Your task to perform on an android device: Clear the cart on walmart. Image 0: 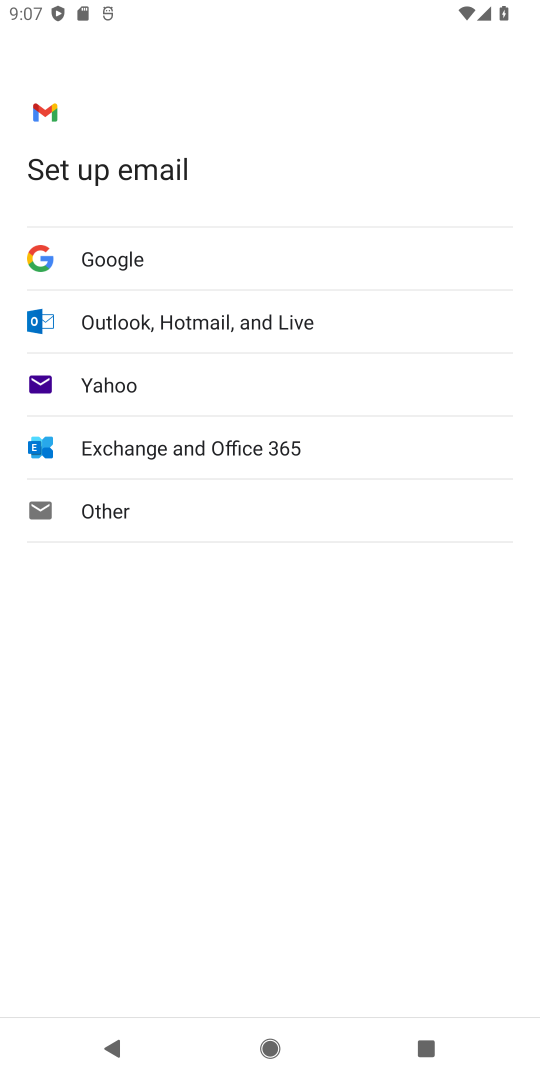
Step 0: press home button
Your task to perform on an android device: Clear the cart on walmart. Image 1: 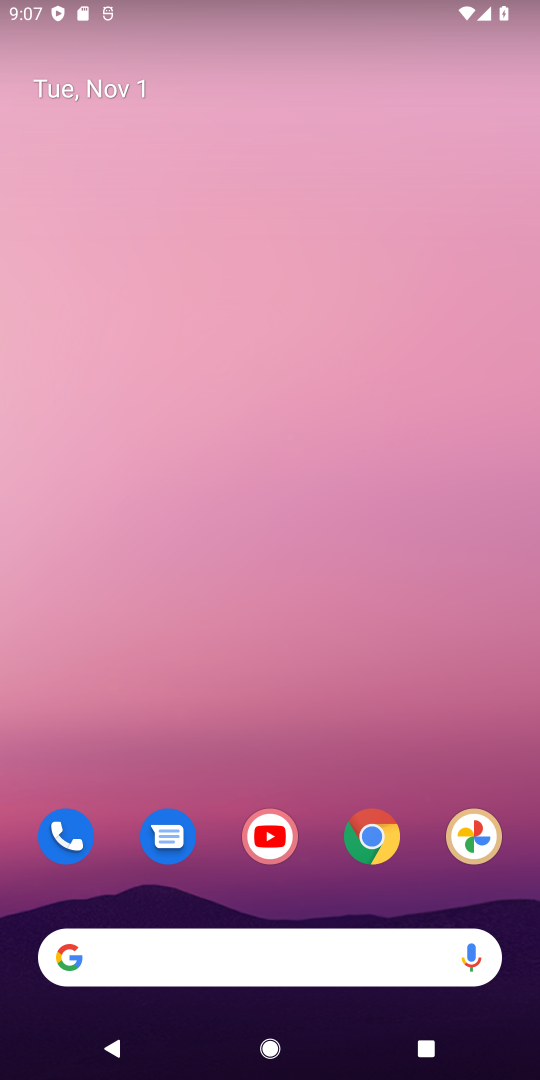
Step 1: click (368, 847)
Your task to perform on an android device: Clear the cart on walmart. Image 2: 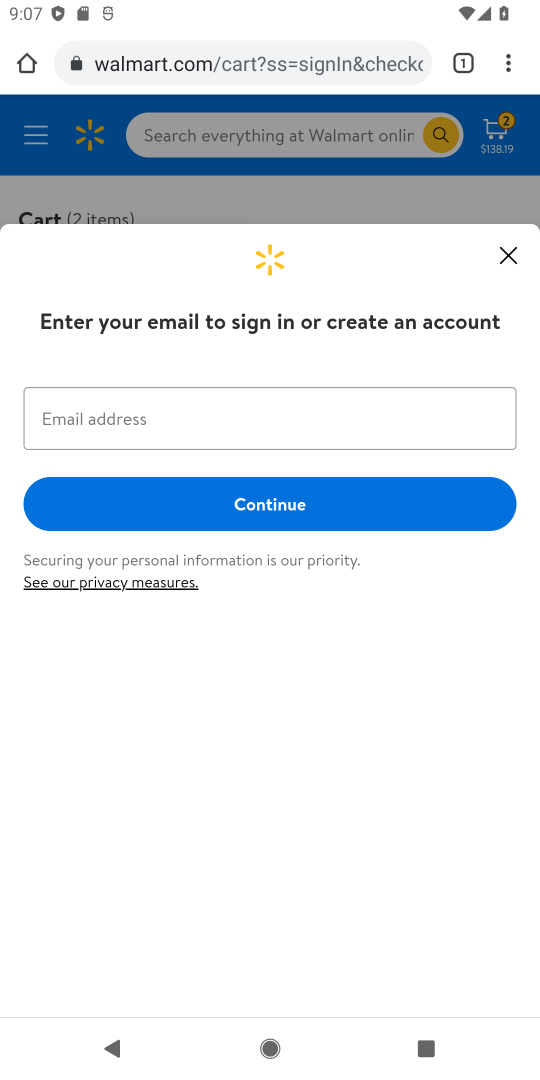
Step 2: click (240, 42)
Your task to perform on an android device: Clear the cart on walmart. Image 3: 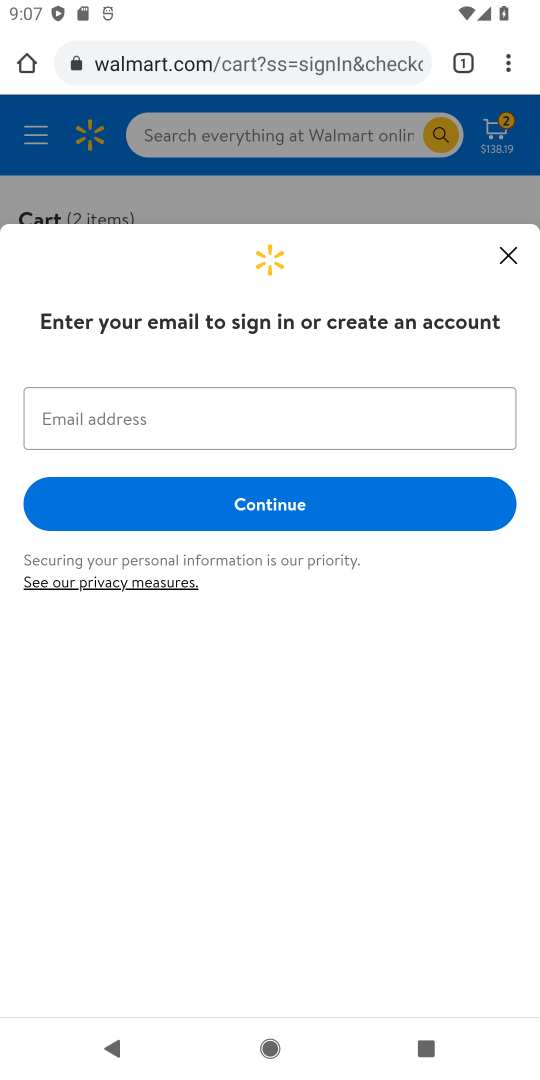
Step 3: click (231, 50)
Your task to perform on an android device: Clear the cart on walmart. Image 4: 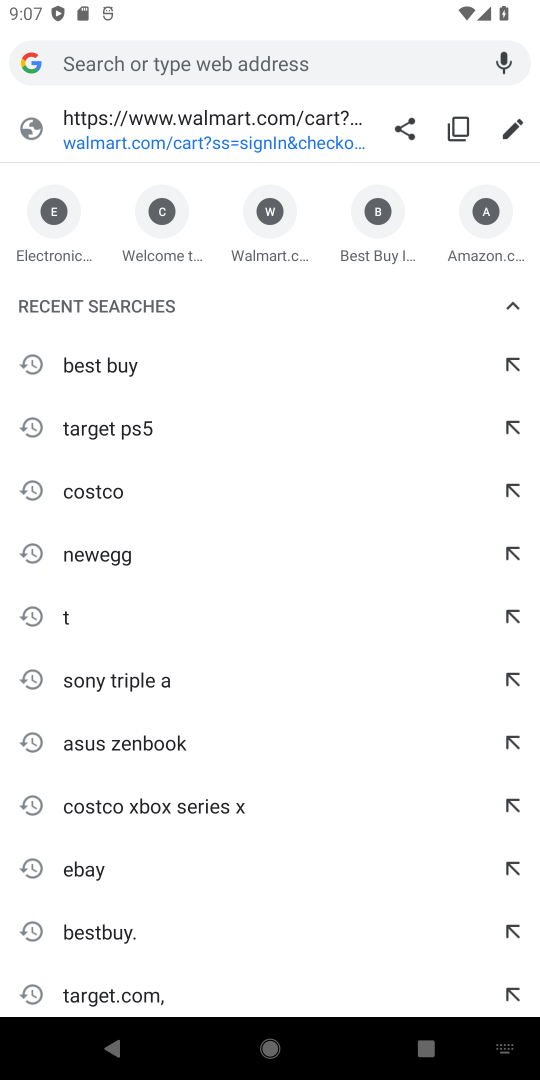
Step 4: type "walmart"
Your task to perform on an android device: Clear the cart on walmart. Image 5: 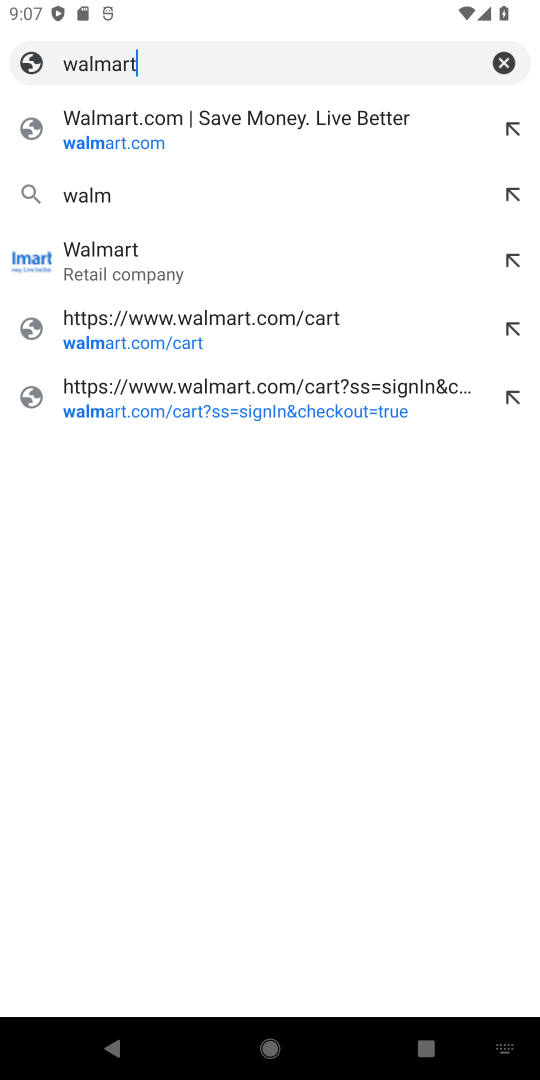
Step 5: type ""
Your task to perform on an android device: Clear the cart on walmart. Image 6: 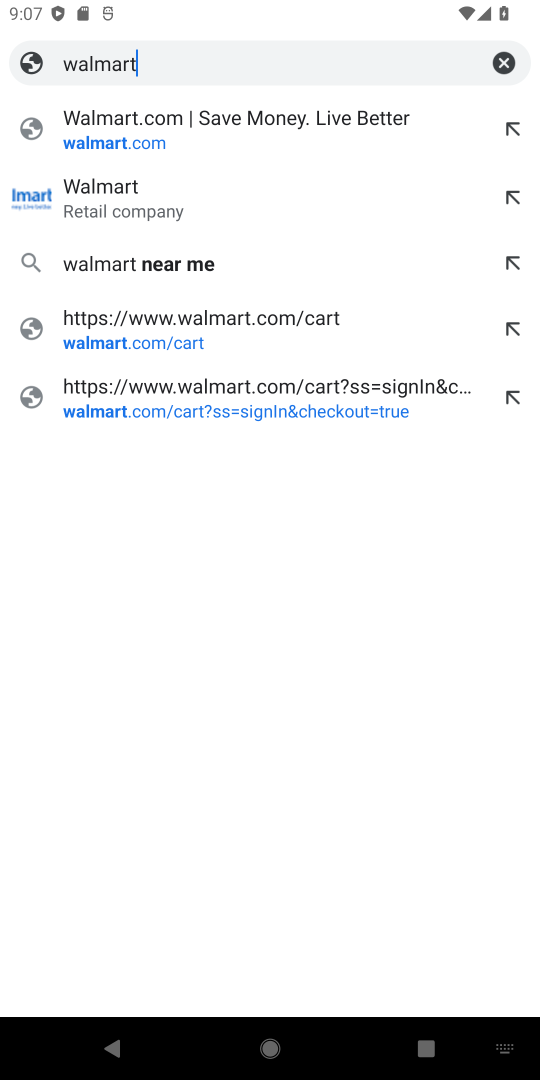
Step 6: press enter
Your task to perform on an android device: Clear the cart on walmart. Image 7: 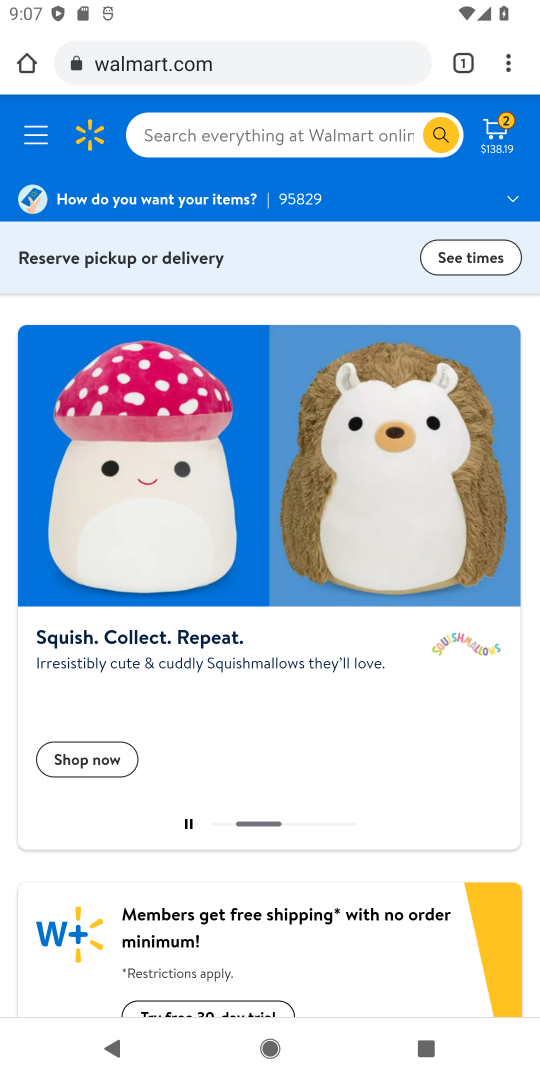
Step 7: click (499, 145)
Your task to perform on an android device: Clear the cart on walmart. Image 8: 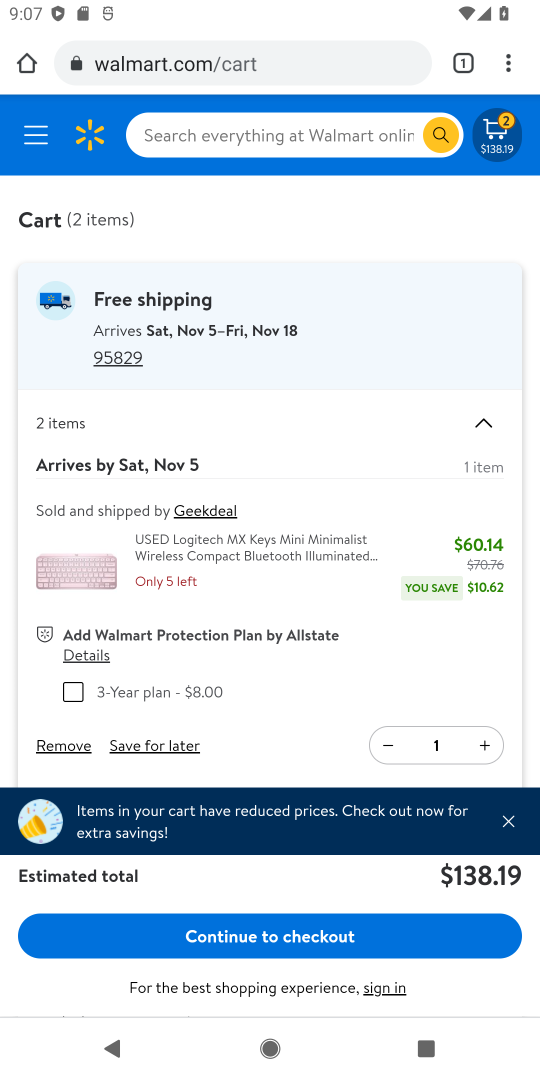
Step 8: click (58, 740)
Your task to perform on an android device: Clear the cart on walmart. Image 9: 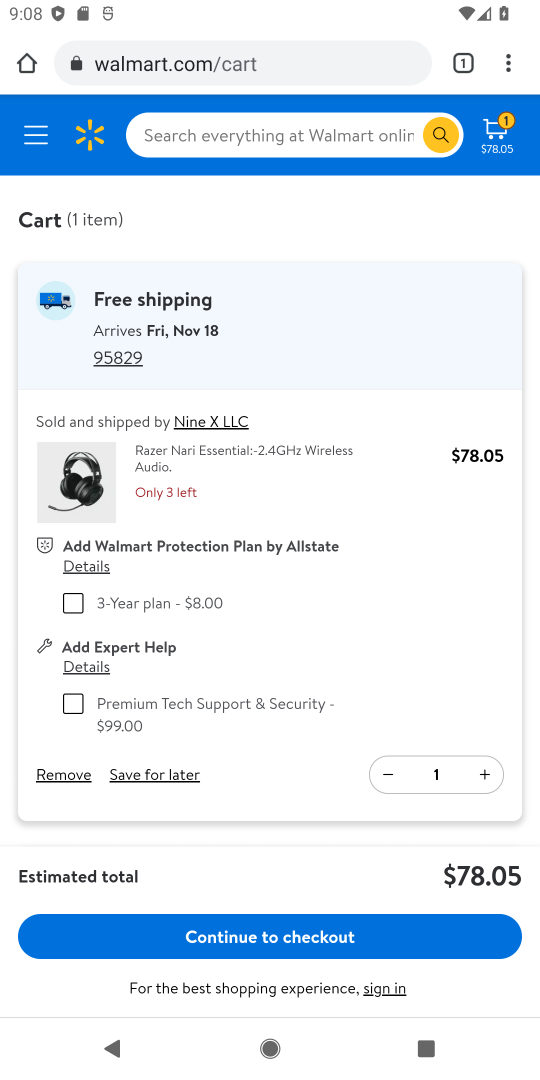
Step 9: click (58, 761)
Your task to perform on an android device: Clear the cart on walmart. Image 10: 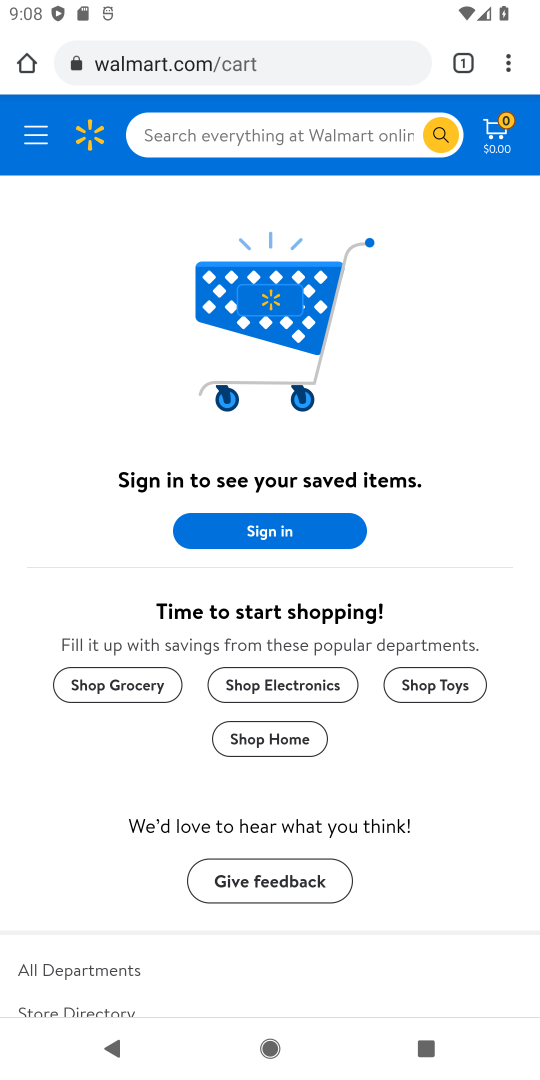
Step 10: press back button
Your task to perform on an android device: Clear the cart on walmart. Image 11: 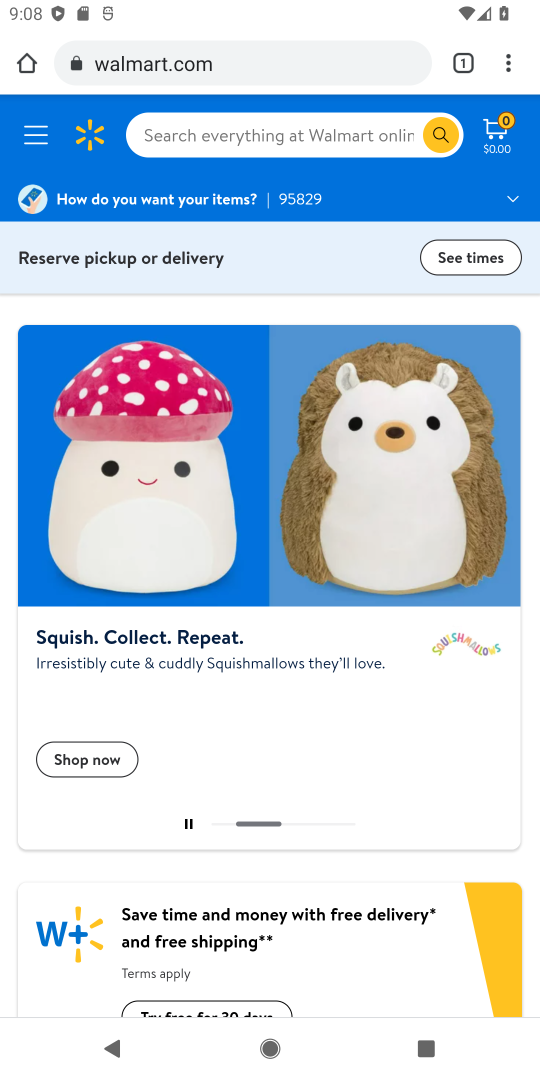
Step 11: drag from (316, 666) to (321, 389)
Your task to perform on an android device: Clear the cart on walmart. Image 12: 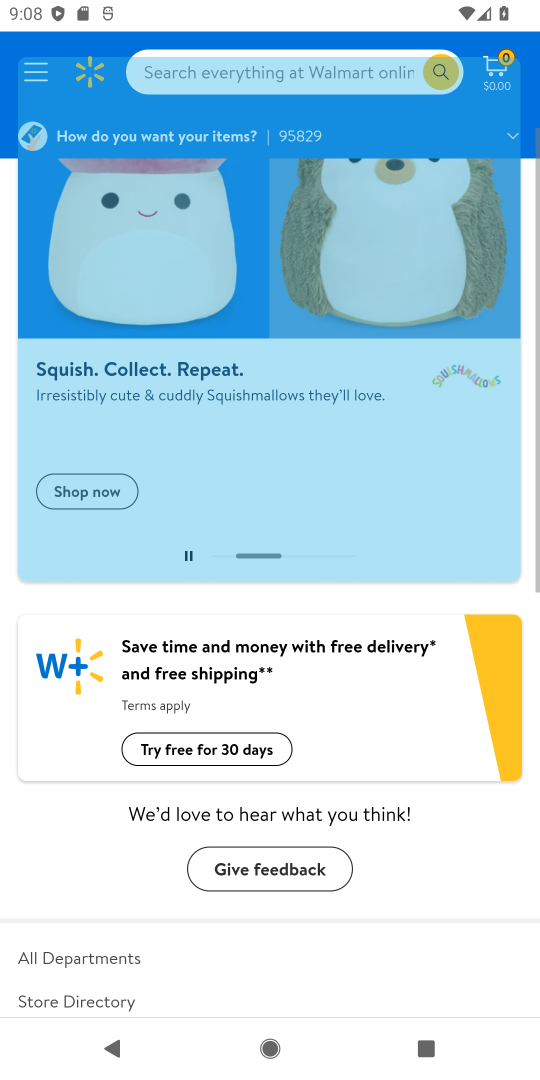
Step 12: drag from (239, 738) to (368, 327)
Your task to perform on an android device: Clear the cart on walmart. Image 13: 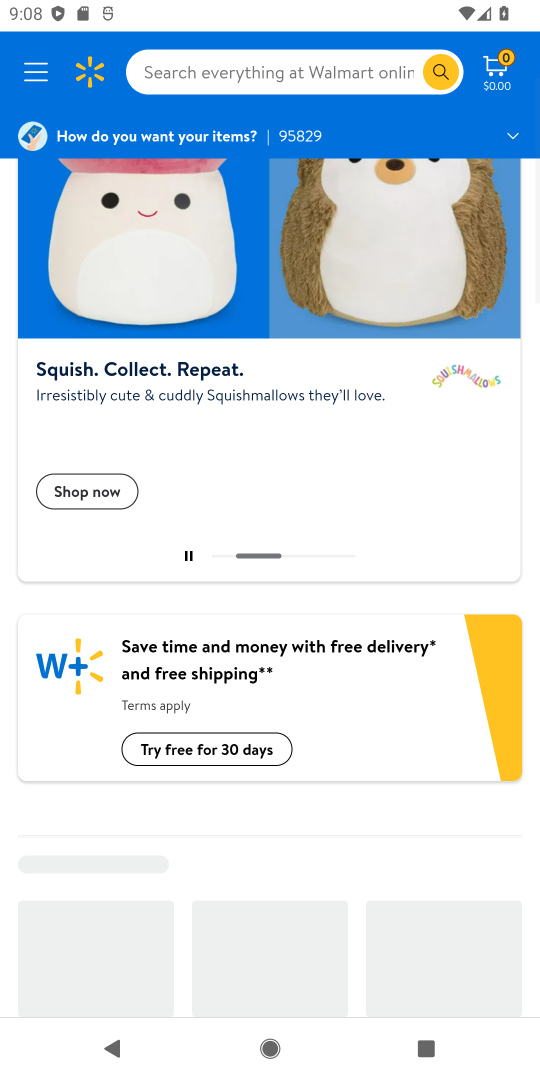
Step 13: drag from (275, 626) to (412, 314)
Your task to perform on an android device: Clear the cart on walmart. Image 14: 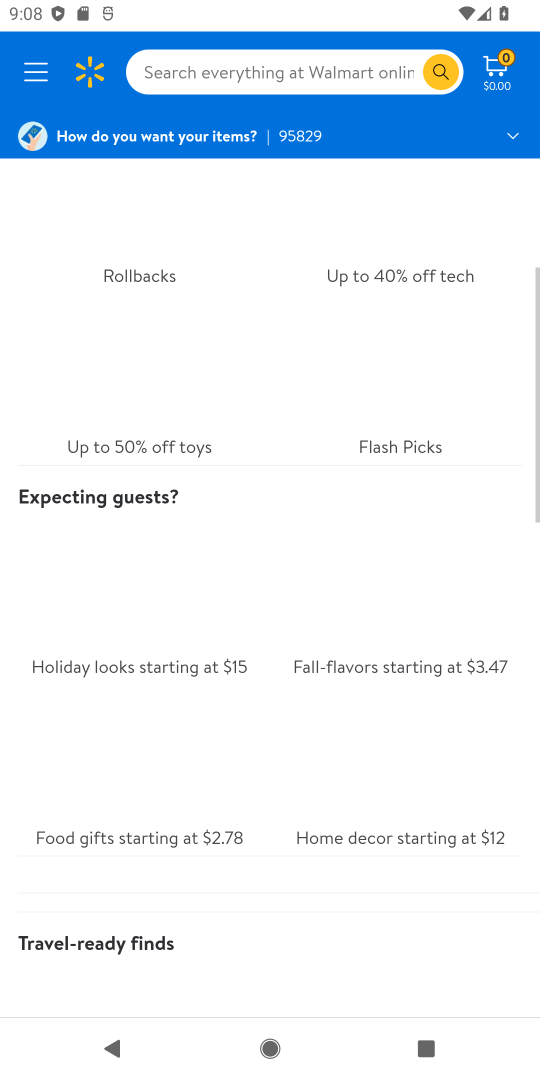
Step 14: drag from (405, 313) to (430, 253)
Your task to perform on an android device: Clear the cart on walmart. Image 15: 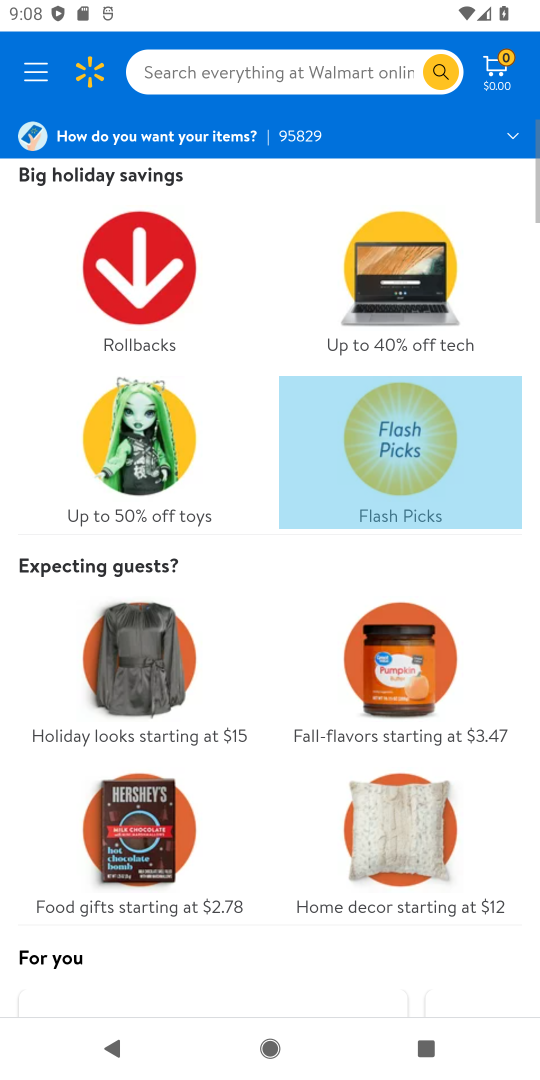
Step 15: drag from (432, 356) to (465, 295)
Your task to perform on an android device: Clear the cart on walmart. Image 16: 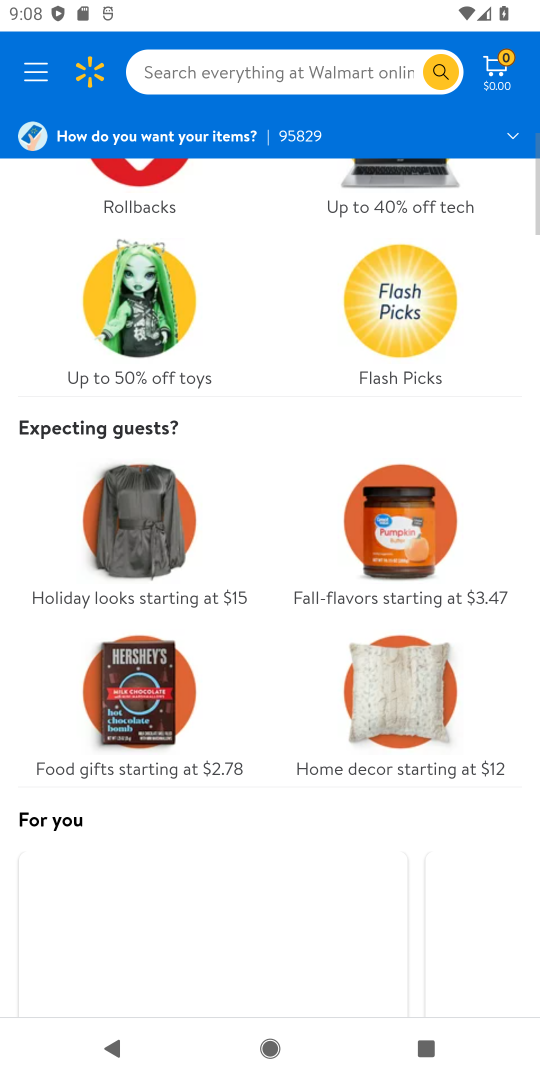
Step 16: click (454, 459)
Your task to perform on an android device: Clear the cart on walmart. Image 17: 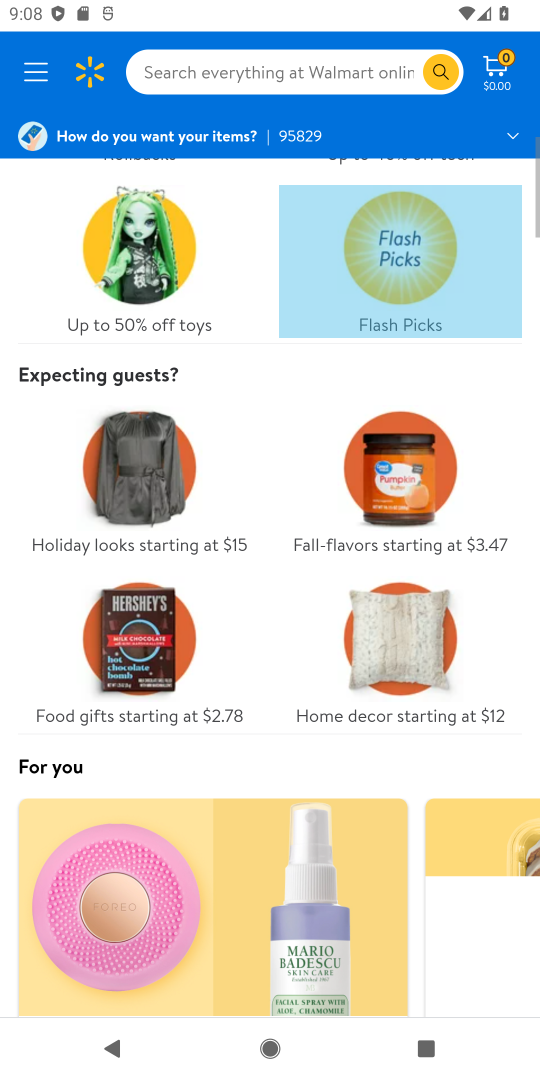
Step 17: click (421, 455)
Your task to perform on an android device: Clear the cart on walmart. Image 18: 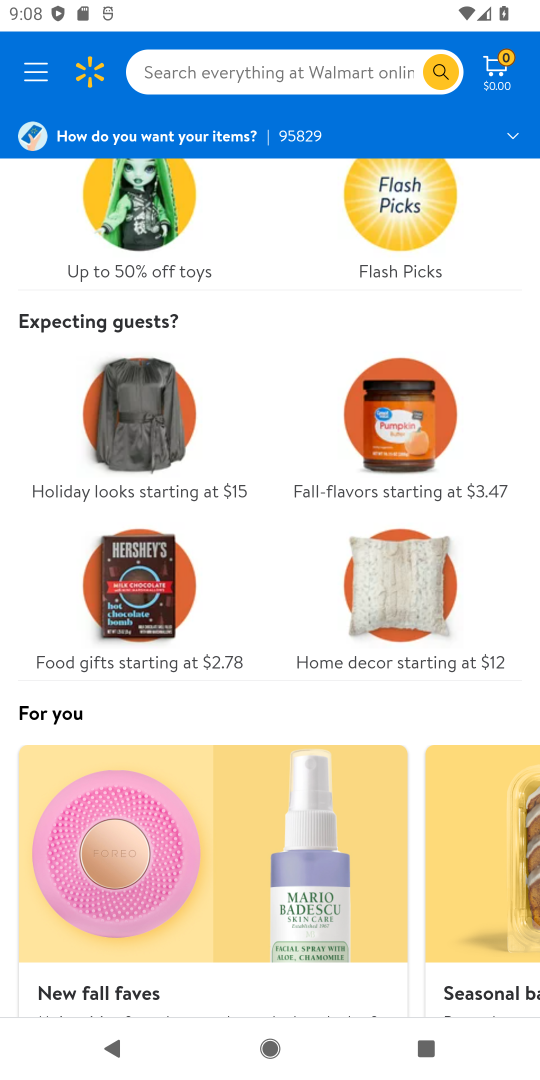
Step 18: drag from (438, 434) to (474, 295)
Your task to perform on an android device: Clear the cart on walmart. Image 19: 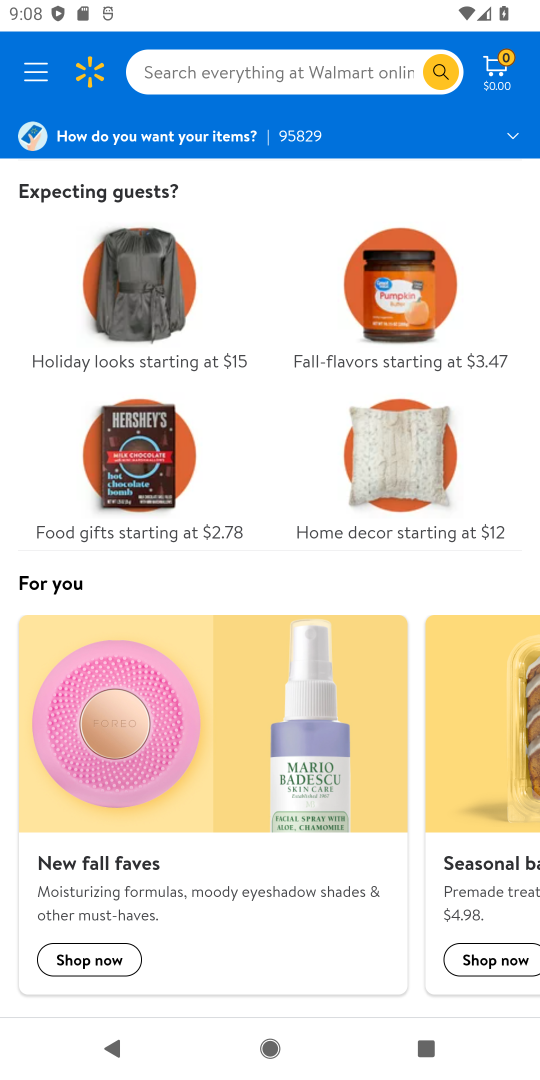
Step 19: drag from (403, 597) to (424, 380)
Your task to perform on an android device: Clear the cart on walmart. Image 20: 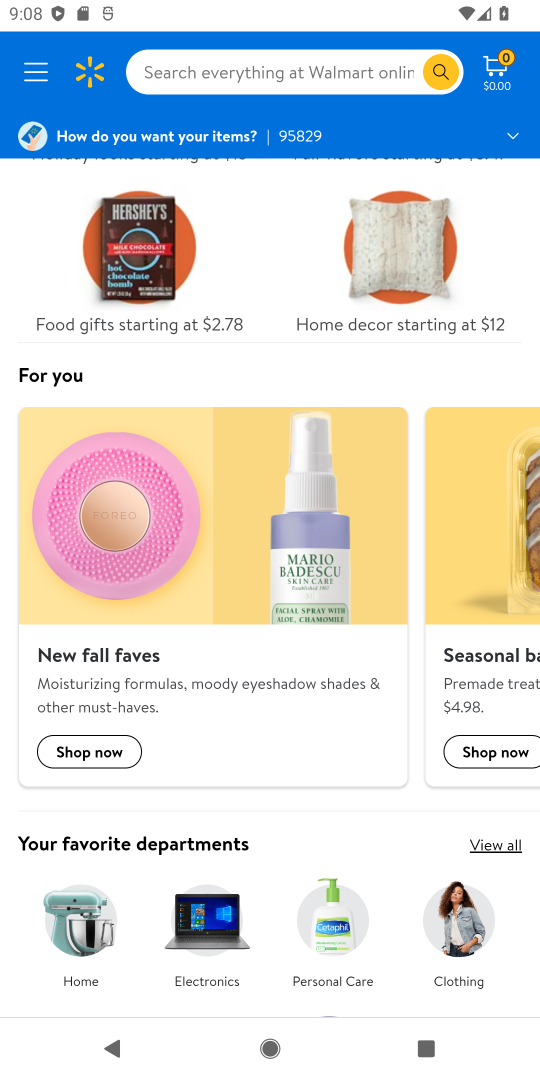
Step 20: drag from (310, 472) to (374, 245)
Your task to perform on an android device: Clear the cart on walmart. Image 21: 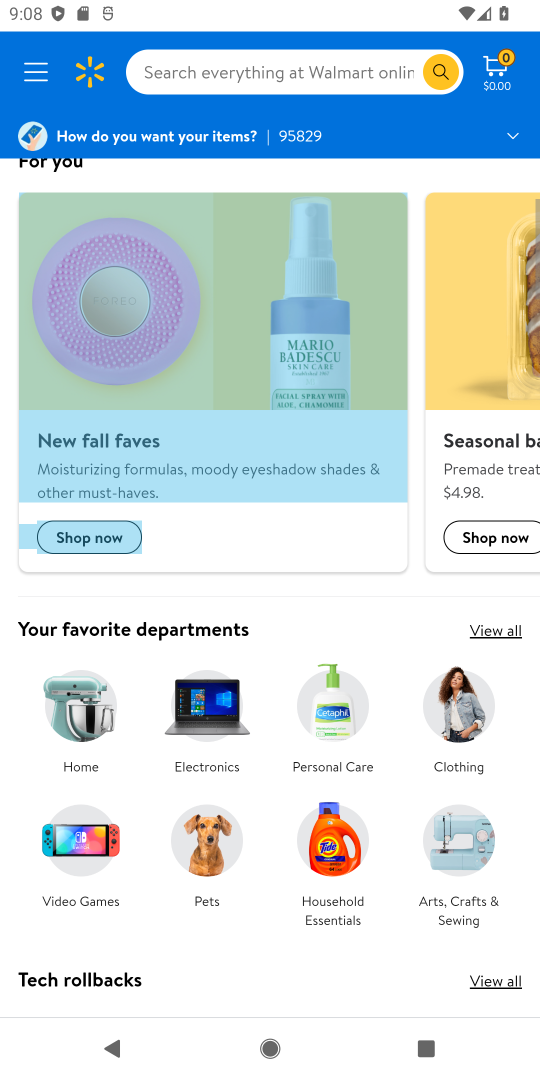
Step 21: drag from (351, 429) to (409, 253)
Your task to perform on an android device: Clear the cart on walmart. Image 22: 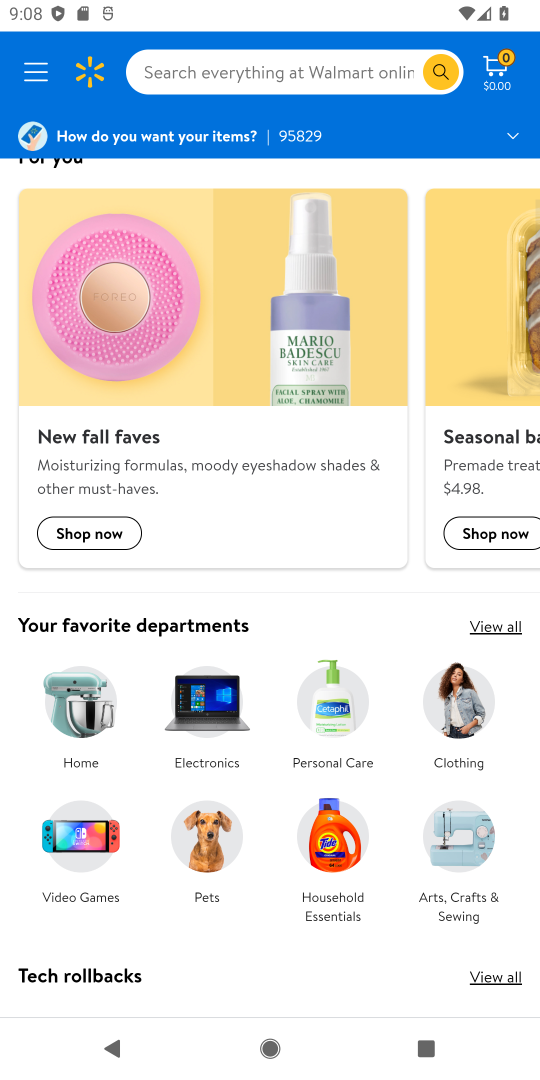
Step 22: drag from (303, 578) to (394, 251)
Your task to perform on an android device: Clear the cart on walmart. Image 23: 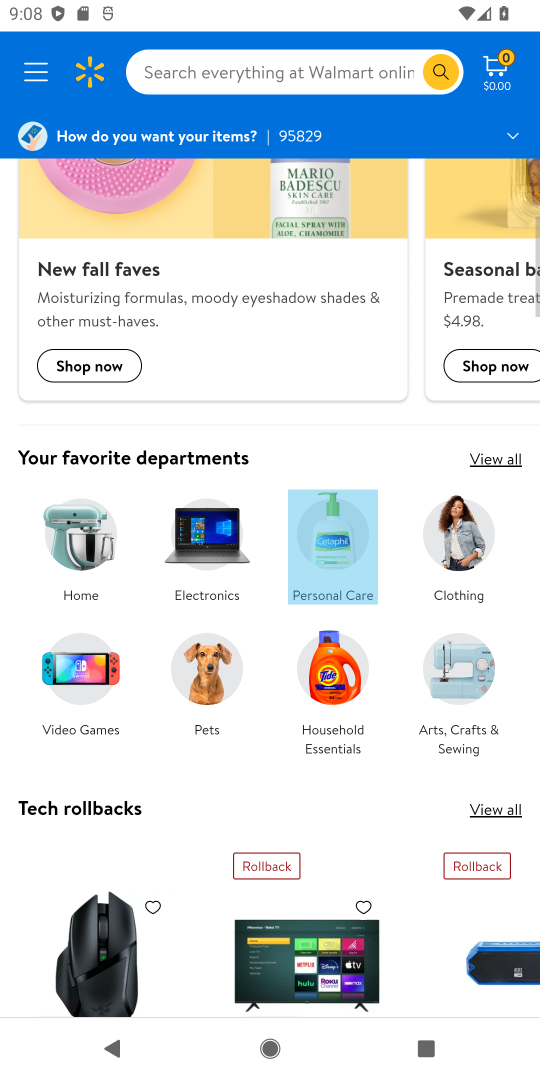
Step 23: drag from (327, 545) to (413, 224)
Your task to perform on an android device: Clear the cart on walmart. Image 24: 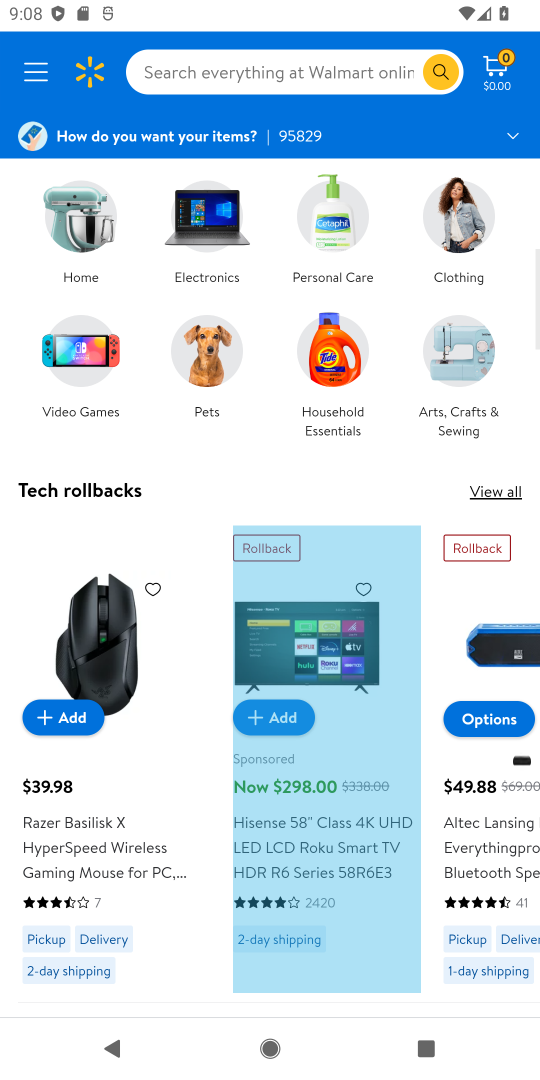
Step 24: drag from (396, 325) to (417, 262)
Your task to perform on an android device: Clear the cart on walmart. Image 25: 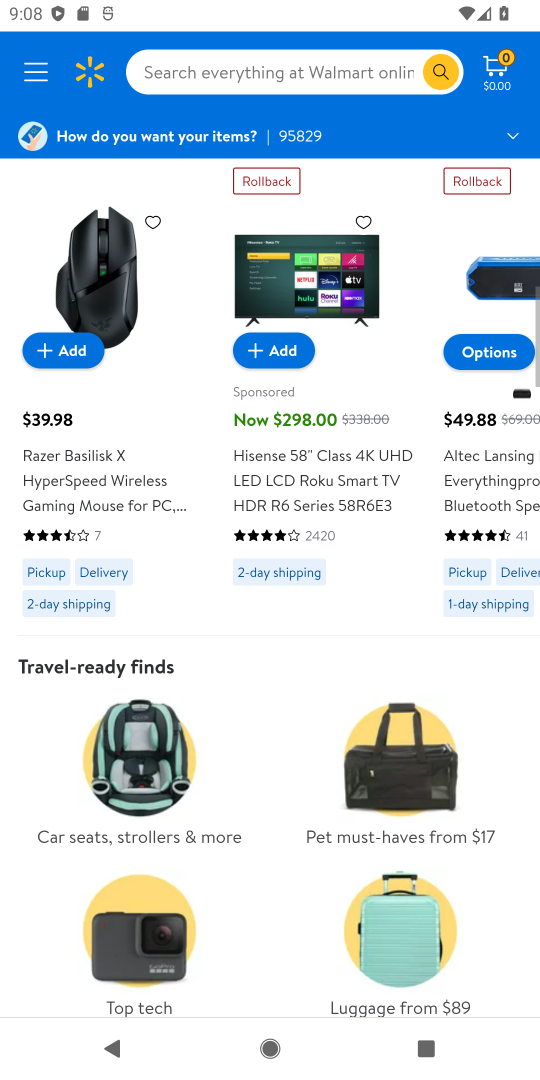
Step 25: drag from (339, 549) to (390, 349)
Your task to perform on an android device: Clear the cart on walmart. Image 26: 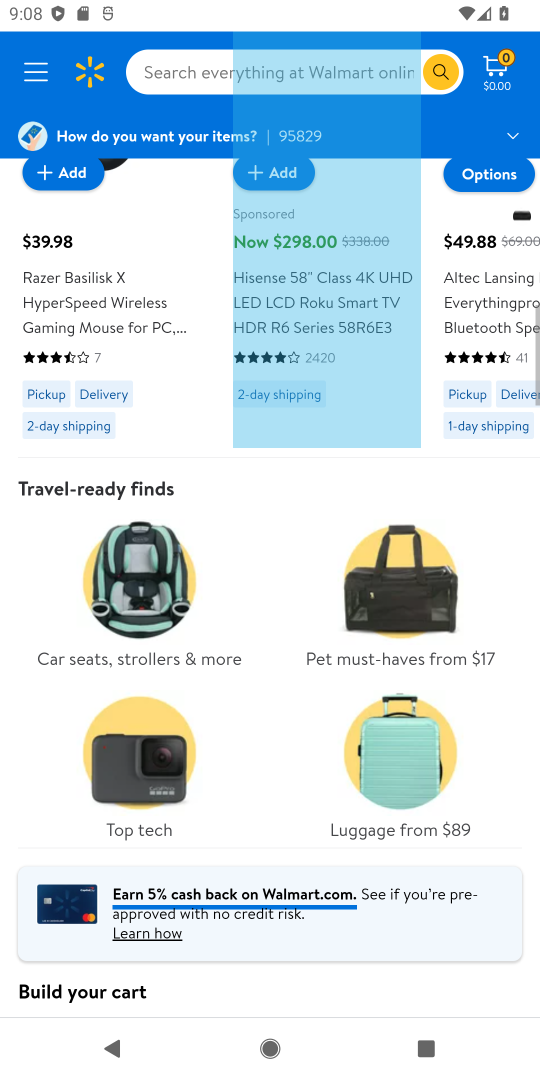
Step 26: drag from (286, 687) to (351, 400)
Your task to perform on an android device: Clear the cart on walmart. Image 27: 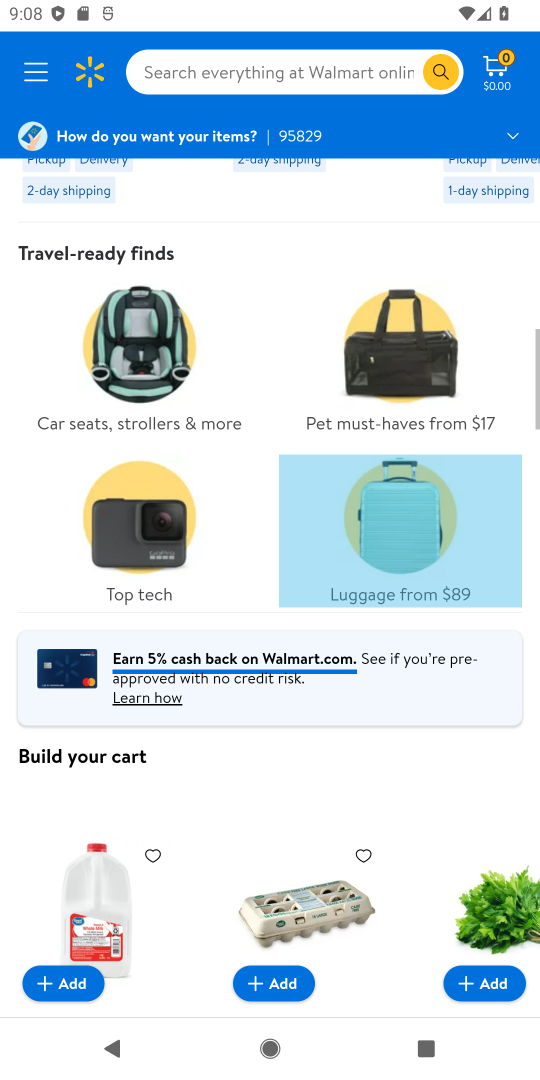
Step 27: drag from (291, 656) to (392, 342)
Your task to perform on an android device: Clear the cart on walmart. Image 28: 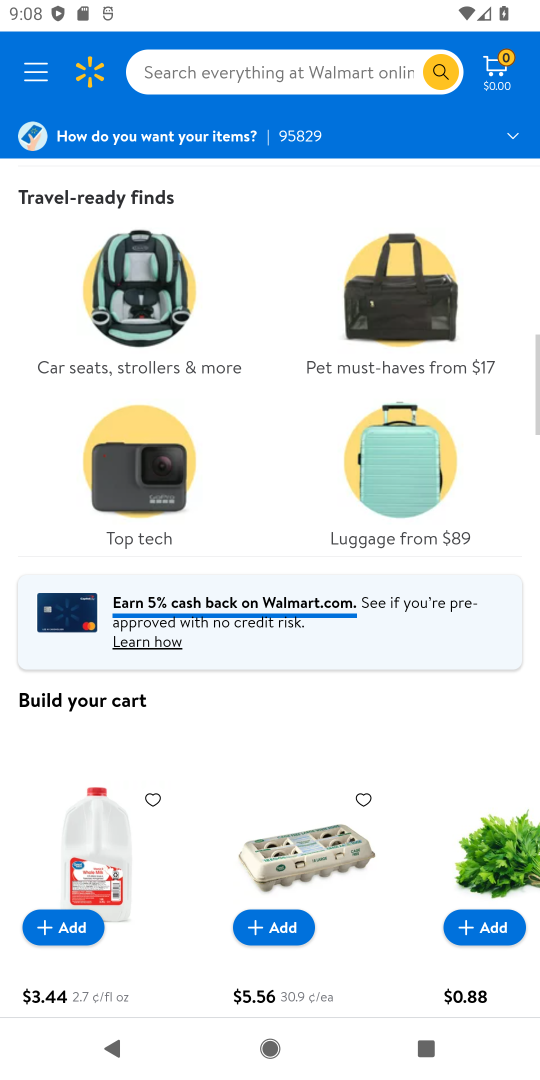
Step 28: drag from (306, 618) to (397, 329)
Your task to perform on an android device: Clear the cart on walmart. Image 29: 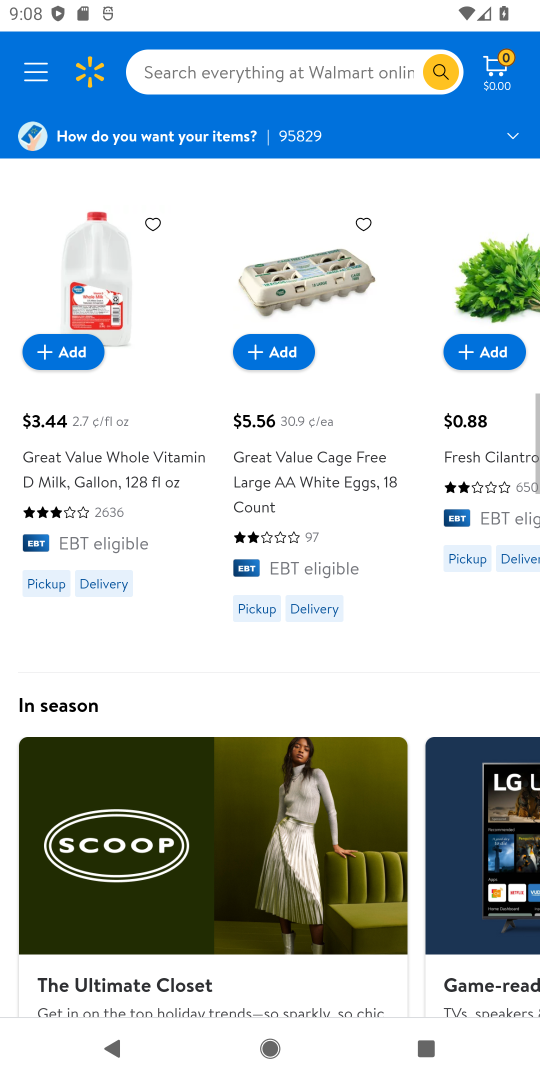
Step 29: drag from (304, 686) to (388, 370)
Your task to perform on an android device: Clear the cart on walmart. Image 30: 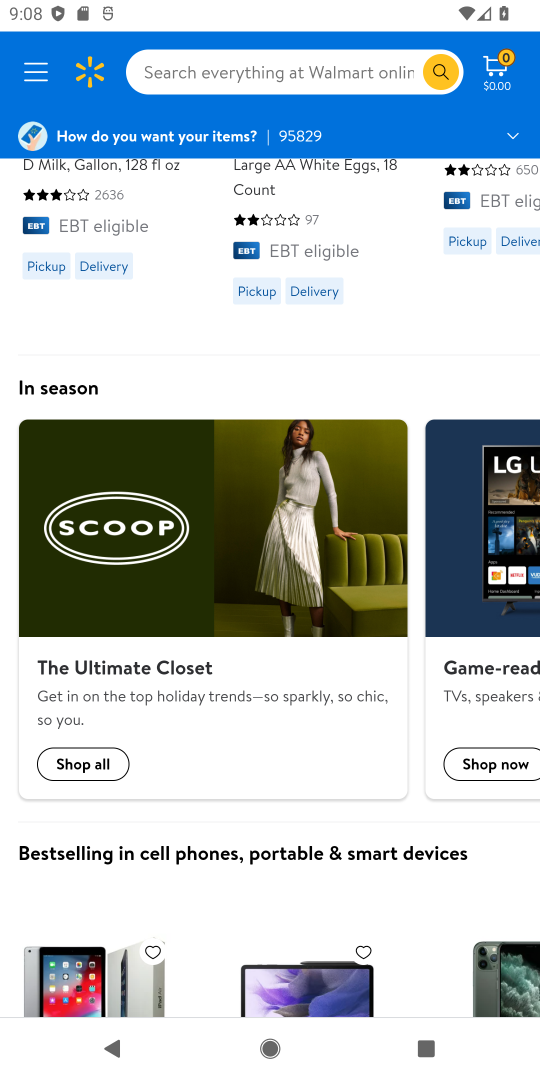
Step 30: drag from (279, 646) to (405, 188)
Your task to perform on an android device: Clear the cart on walmart. Image 31: 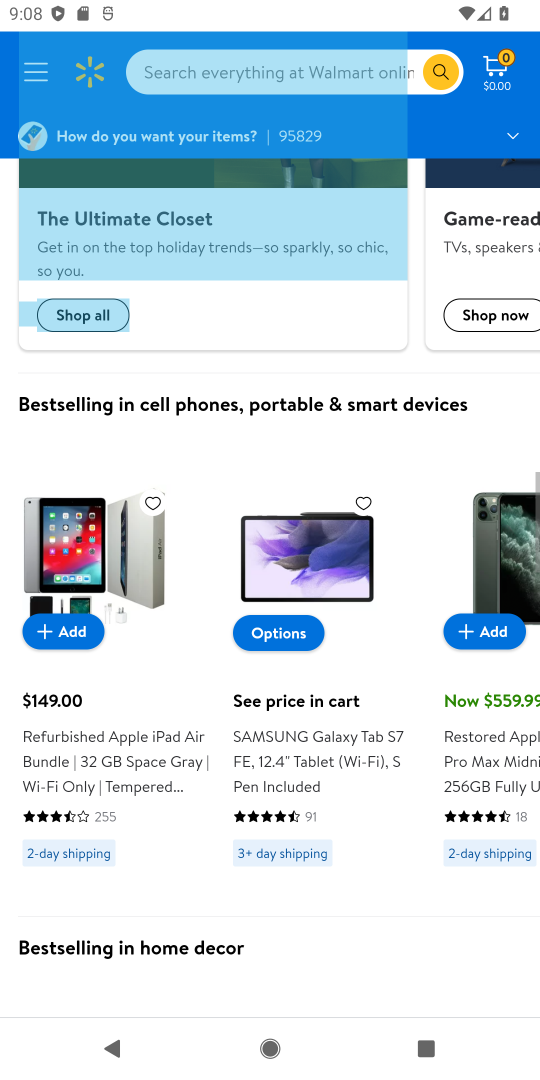
Step 31: drag from (258, 569) to (338, 239)
Your task to perform on an android device: Clear the cart on walmart. Image 32: 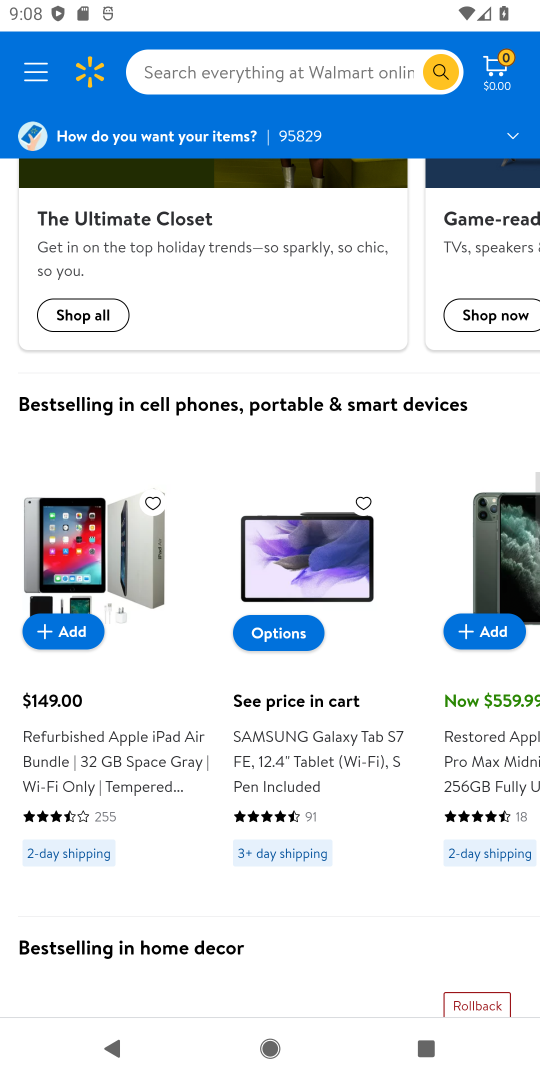
Step 32: drag from (343, 344) to (359, 287)
Your task to perform on an android device: Clear the cart on walmart. Image 33: 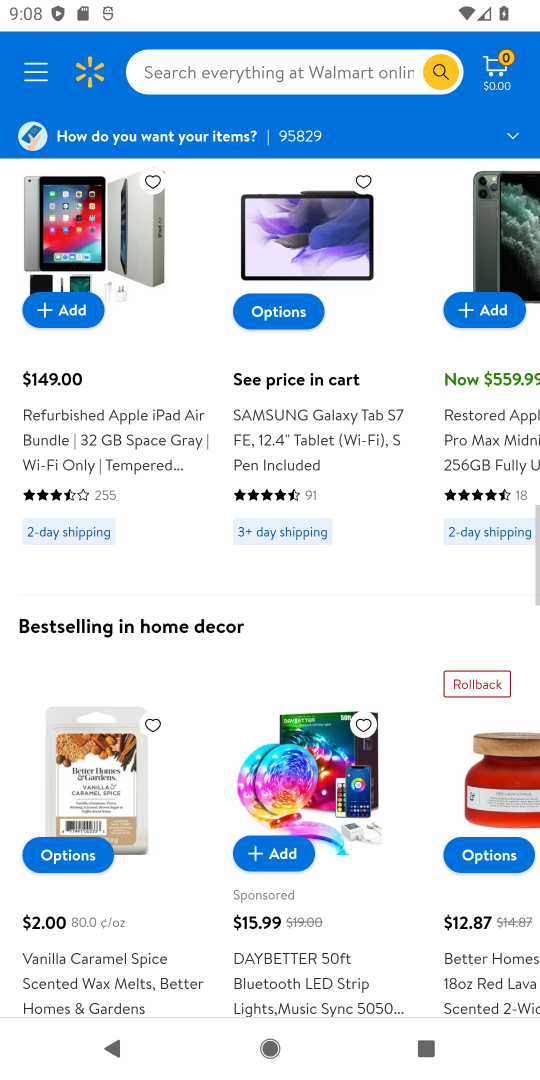
Step 33: drag from (223, 687) to (376, 350)
Your task to perform on an android device: Clear the cart on walmart. Image 34: 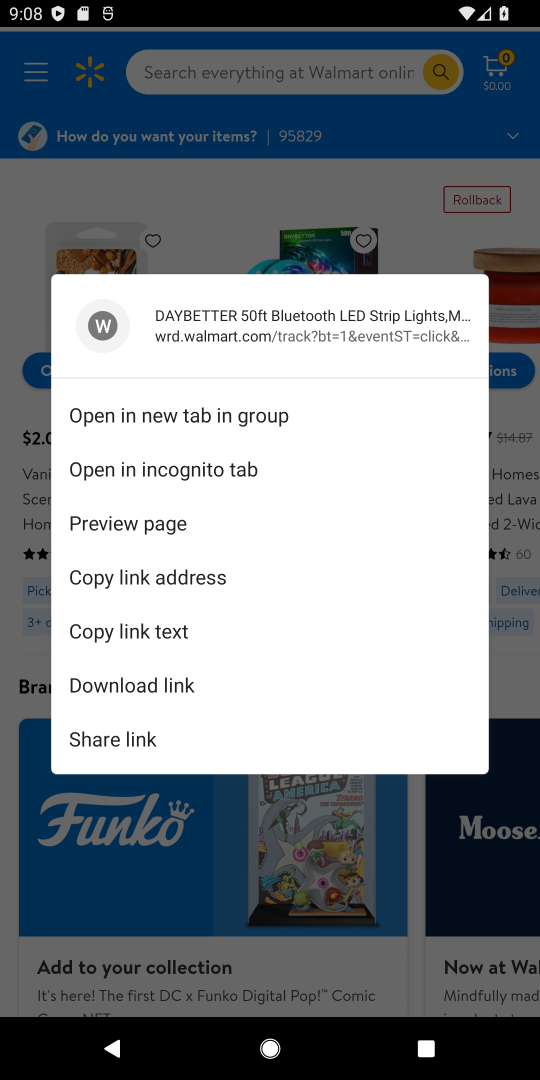
Step 34: click (442, 890)
Your task to perform on an android device: Clear the cart on walmart. Image 35: 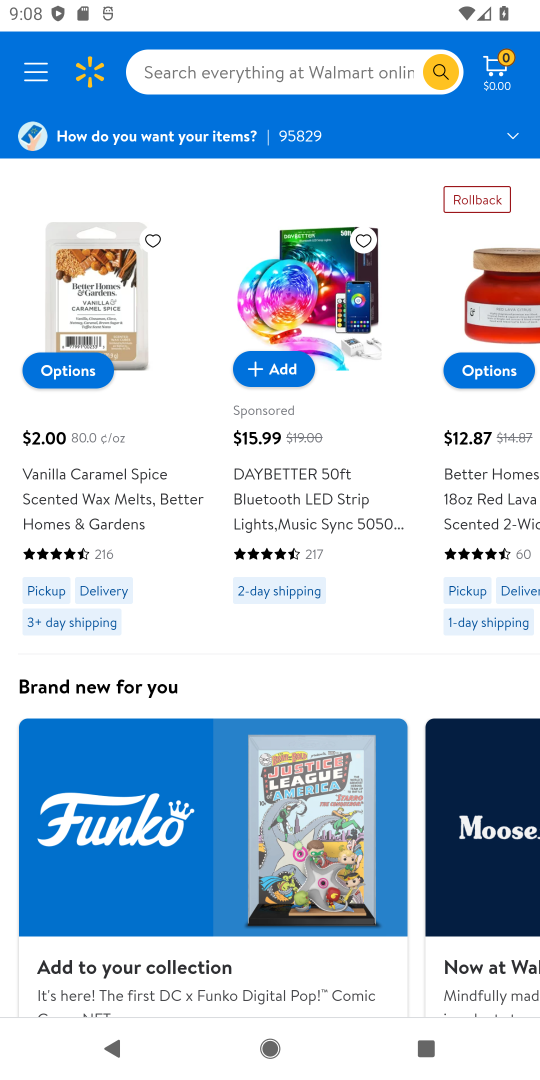
Step 35: task complete